Your task to perform on an android device: check the backup settings in the google photos Image 0: 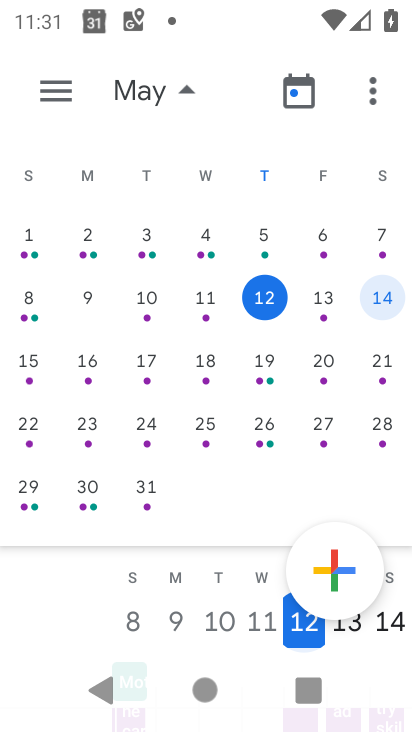
Step 0: press home button
Your task to perform on an android device: check the backup settings in the google photos Image 1: 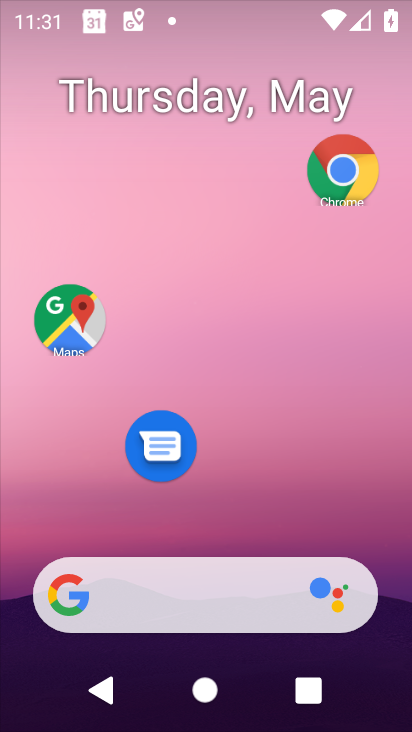
Step 1: drag from (275, 618) to (235, 95)
Your task to perform on an android device: check the backup settings in the google photos Image 2: 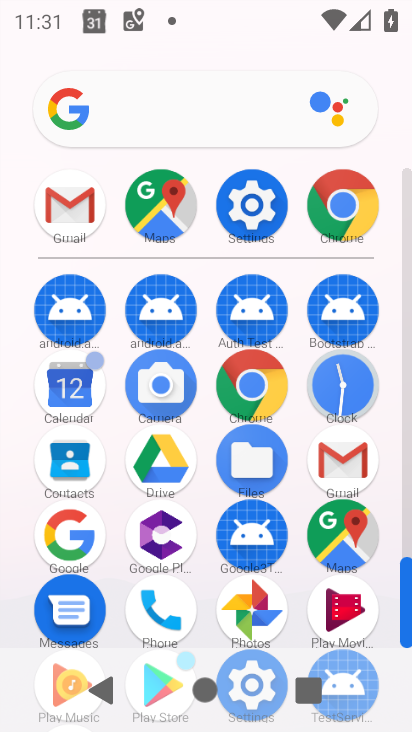
Step 2: click (249, 603)
Your task to perform on an android device: check the backup settings in the google photos Image 3: 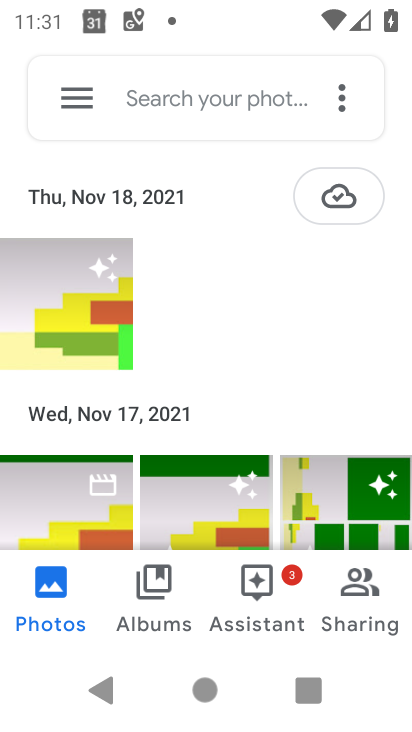
Step 3: click (75, 94)
Your task to perform on an android device: check the backup settings in the google photos Image 4: 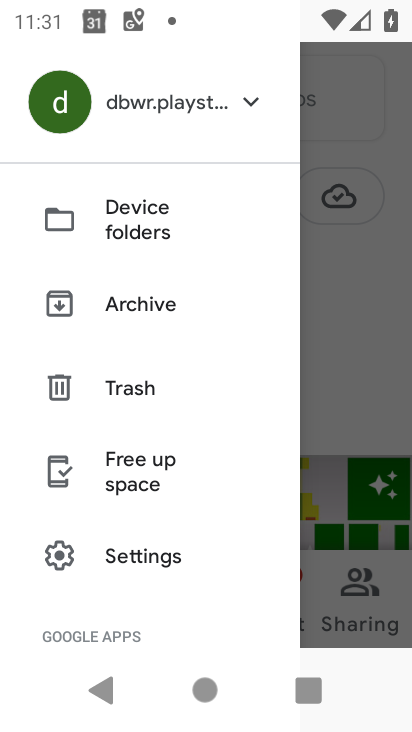
Step 4: click (189, 562)
Your task to perform on an android device: check the backup settings in the google photos Image 5: 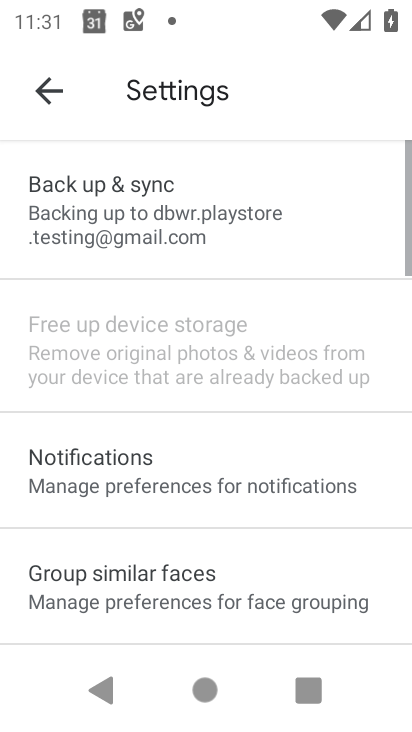
Step 5: click (243, 223)
Your task to perform on an android device: check the backup settings in the google photos Image 6: 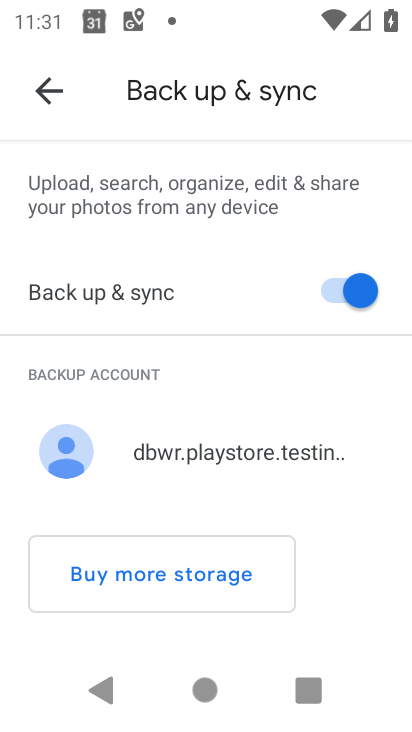
Step 6: task complete